Your task to perform on an android device: What's the weather going to be this weekend? Image 0: 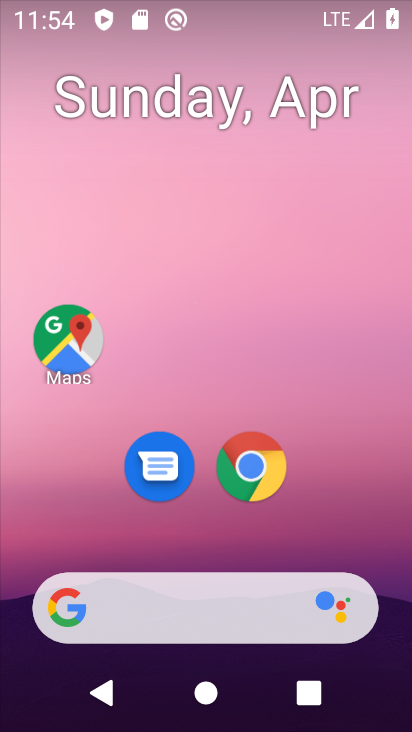
Step 0: click (263, 462)
Your task to perform on an android device: What's the weather going to be this weekend? Image 1: 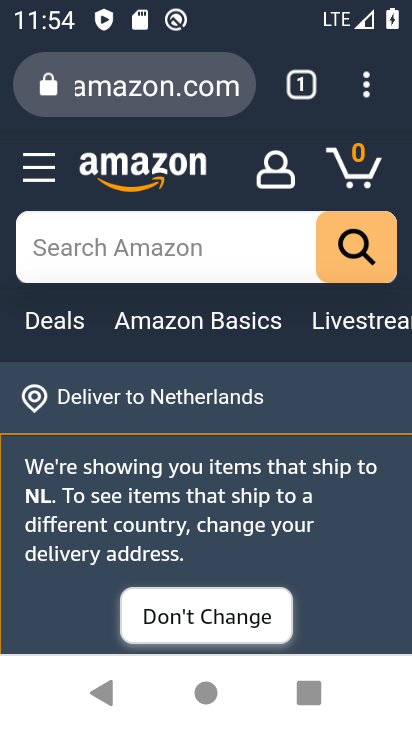
Step 1: drag from (316, 685) to (371, 640)
Your task to perform on an android device: What's the weather going to be this weekend? Image 2: 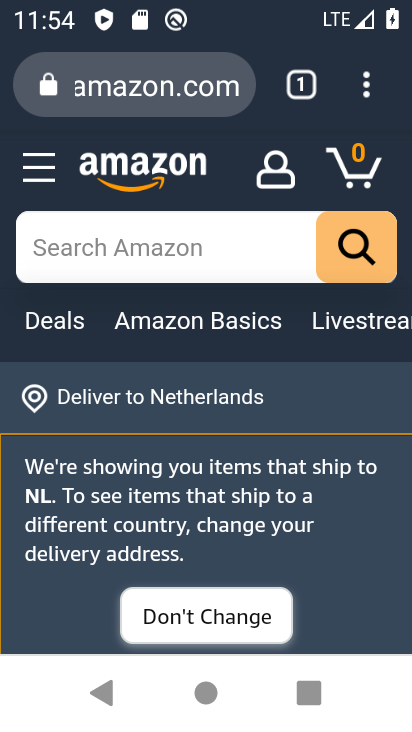
Step 2: click (157, 103)
Your task to perform on an android device: What's the weather going to be this weekend? Image 3: 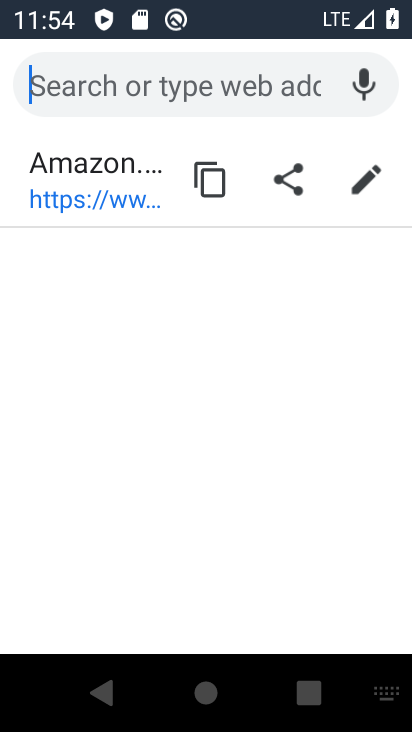
Step 3: type "What's the weather going to be this weekend?"
Your task to perform on an android device: What's the weather going to be this weekend? Image 4: 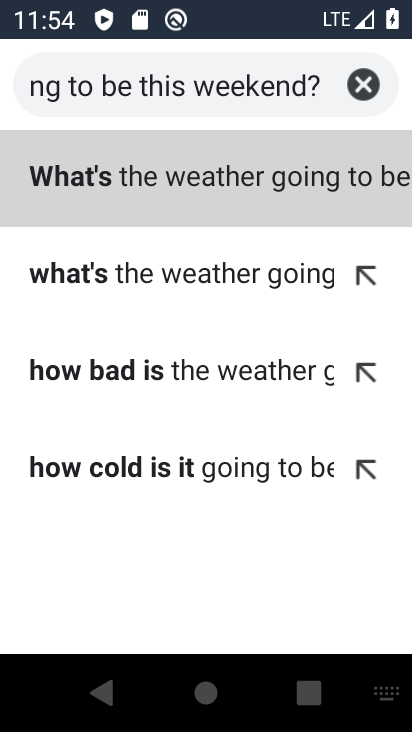
Step 4: click (201, 179)
Your task to perform on an android device: What's the weather going to be this weekend? Image 5: 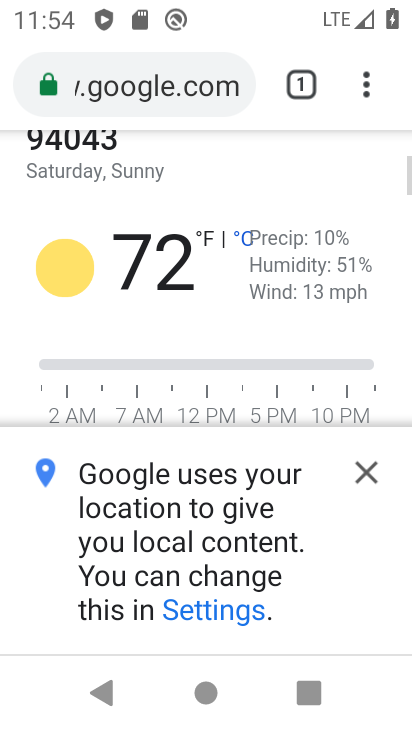
Step 5: click (369, 467)
Your task to perform on an android device: What's the weather going to be this weekend? Image 6: 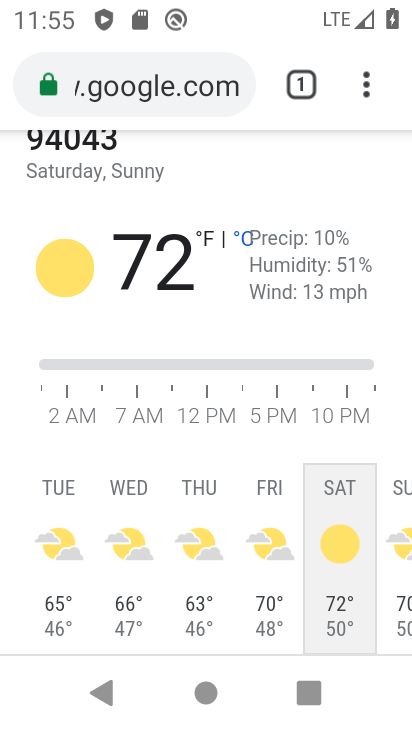
Step 6: task complete